Your task to perform on an android device: toggle notification dots Image 0: 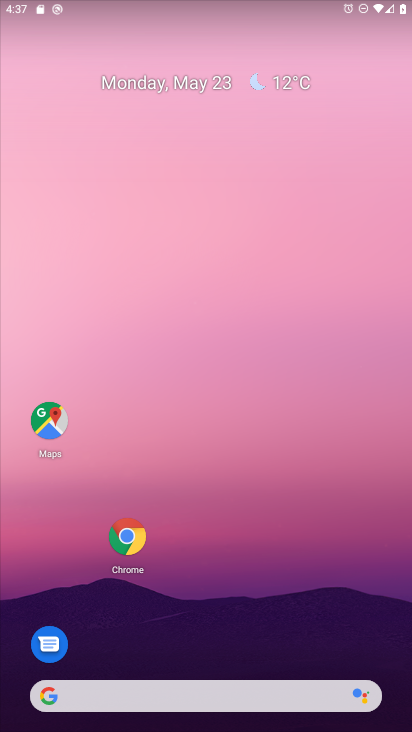
Step 0: drag from (286, 424) to (256, 105)
Your task to perform on an android device: toggle notification dots Image 1: 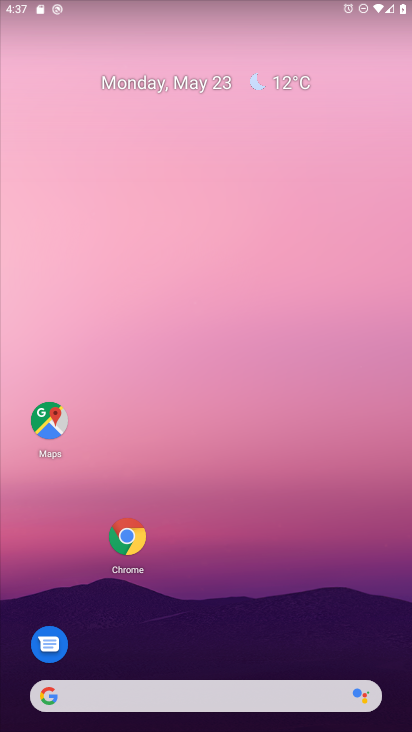
Step 1: drag from (214, 496) to (247, 52)
Your task to perform on an android device: toggle notification dots Image 2: 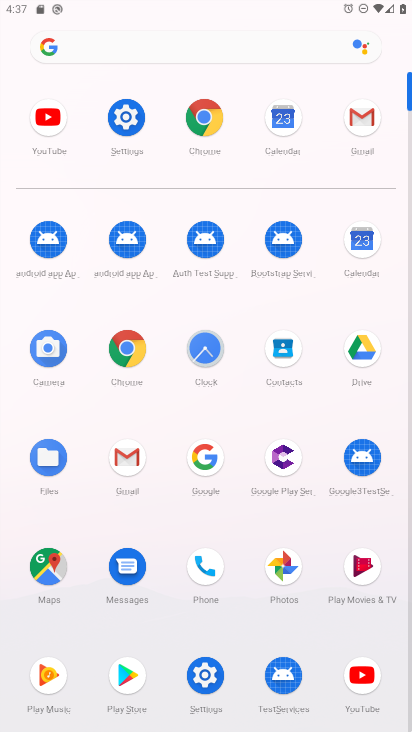
Step 2: click (127, 120)
Your task to perform on an android device: toggle notification dots Image 3: 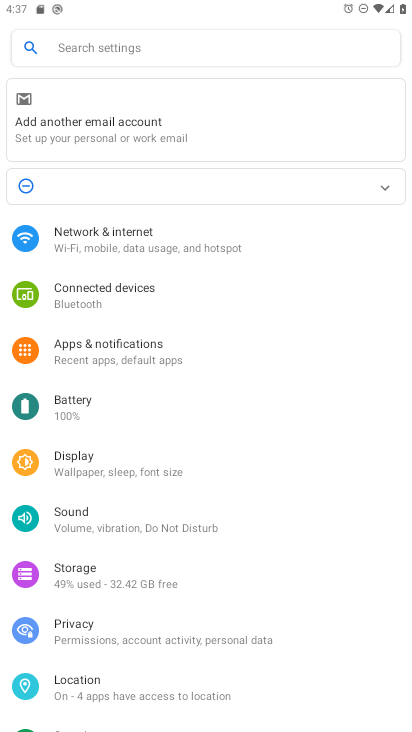
Step 3: click (120, 344)
Your task to perform on an android device: toggle notification dots Image 4: 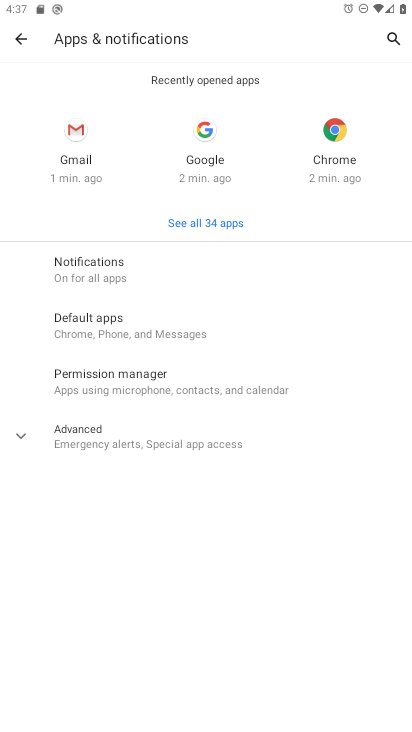
Step 4: click (116, 265)
Your task to perform on an android device: toggle notification dots Image 5: 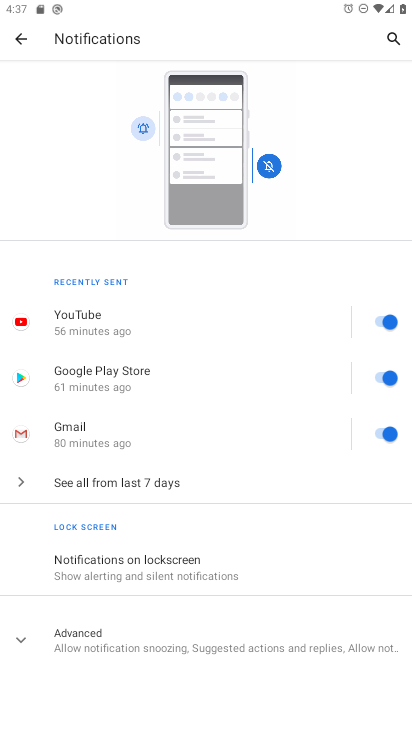
Step 5: click (124, 628)
Your task to perform on an android device: toggle notification dots Image 6: 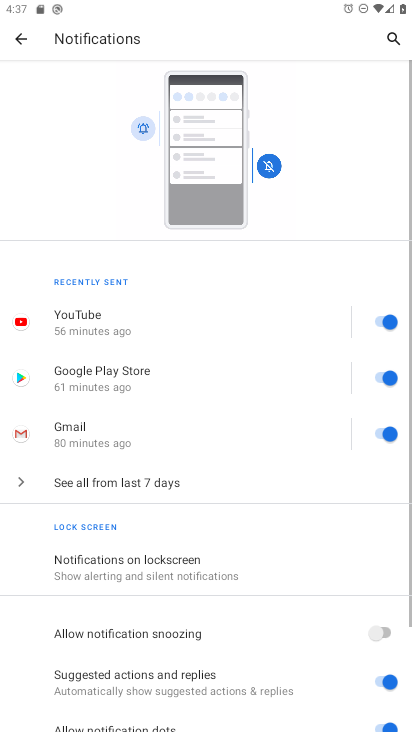
Step 6: drag from (184, 640) to (211, 244)
Your task to perform on an android device: toggle notification dots Image 7: 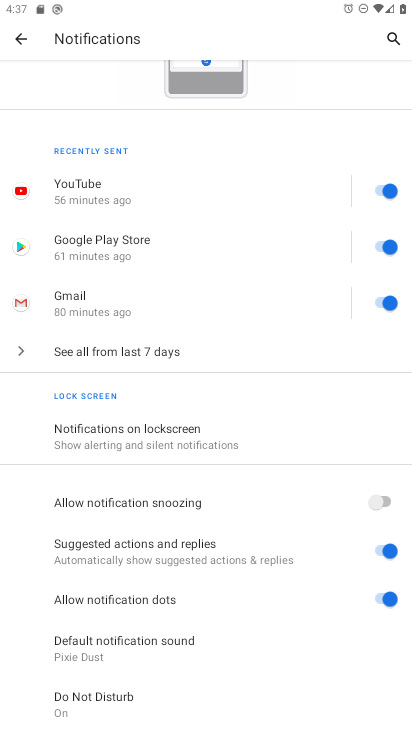
Step 7: click (394, 587)
Your task to perform on an android device: toggle notification dots Image 8: 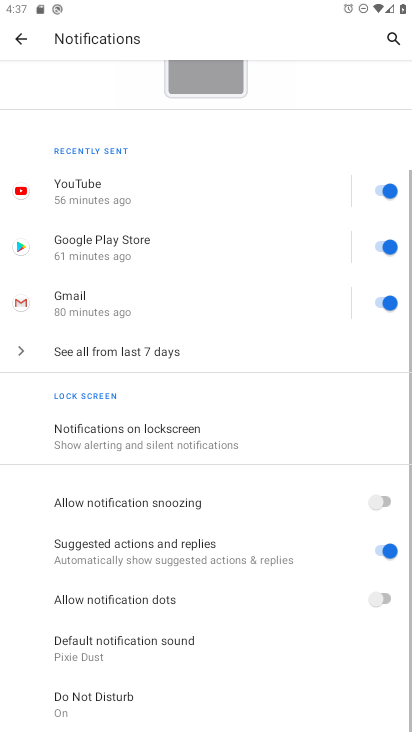
Step 8: task complete